Your task to perform on an android device: Search for Mexican restaurants on Maps Image 0: 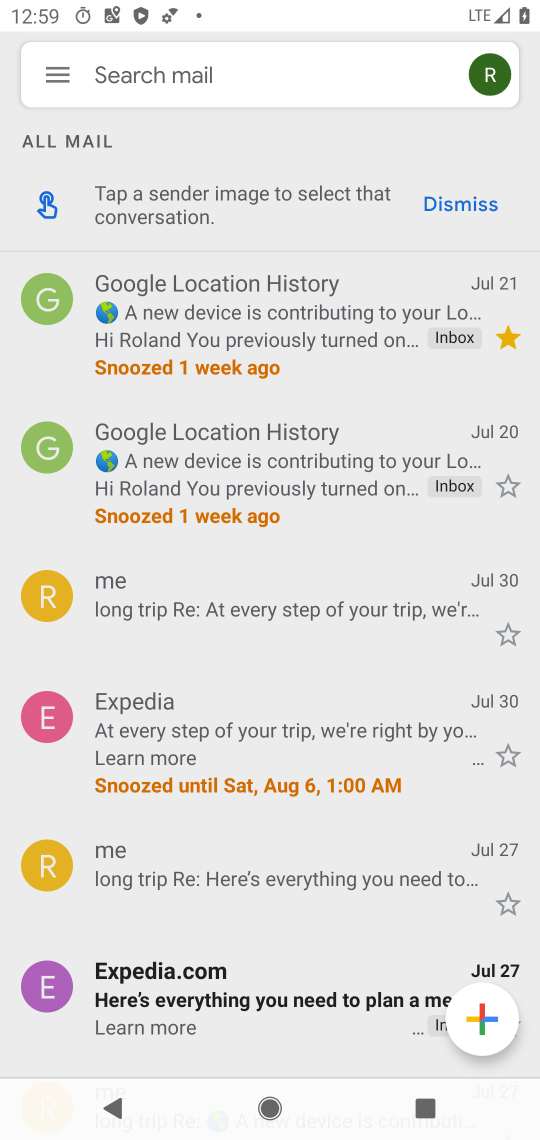
Step 0: press home button
Your task to perform on an android device: Search for Mexican restaurants on Maps Image 1: 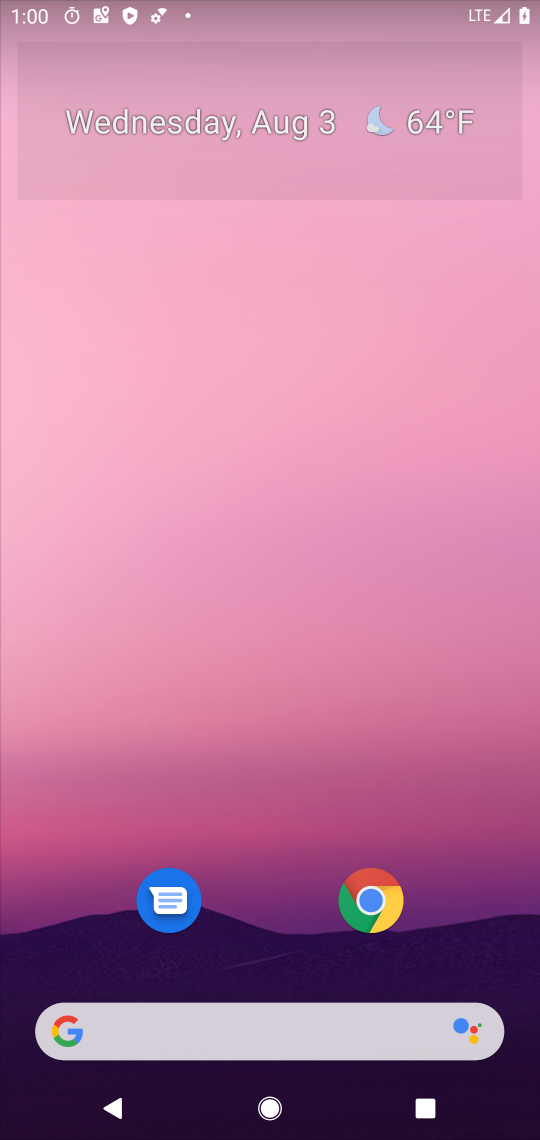
Step 1: drag from (274, 930) to (306, 41)
Your task to perform on an android device: Search for Mexican restaurants on Maps Image 2: 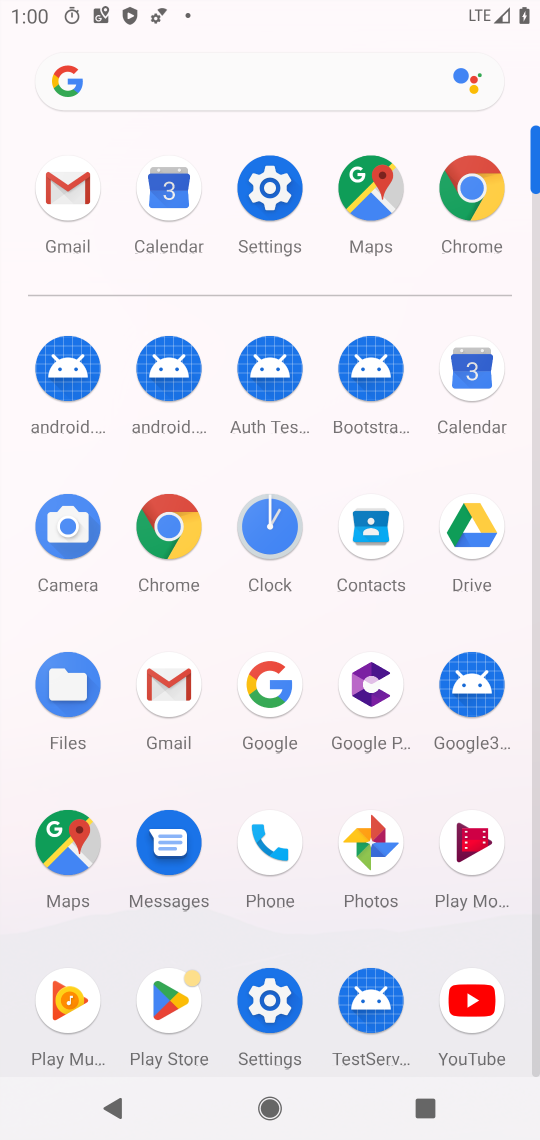
Step 2: click (383, 180)
Your task to perform on an android device: Search for Mexican restaurants on Maps Image 3: 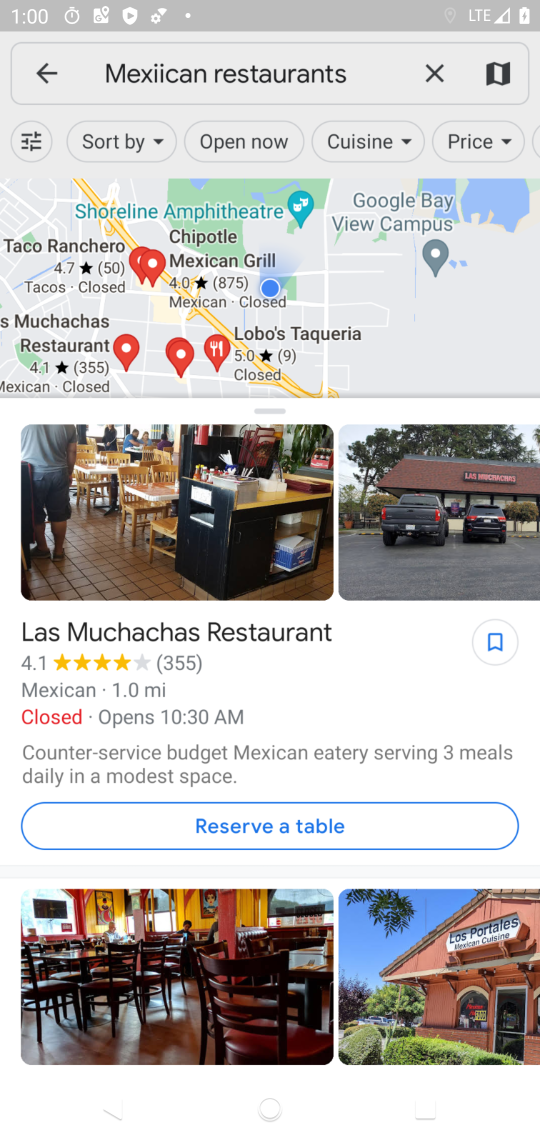
Step 3: click (342, 78)
Your task to perform on an android device: Search for Mexican restaurants on Maps Image 4: 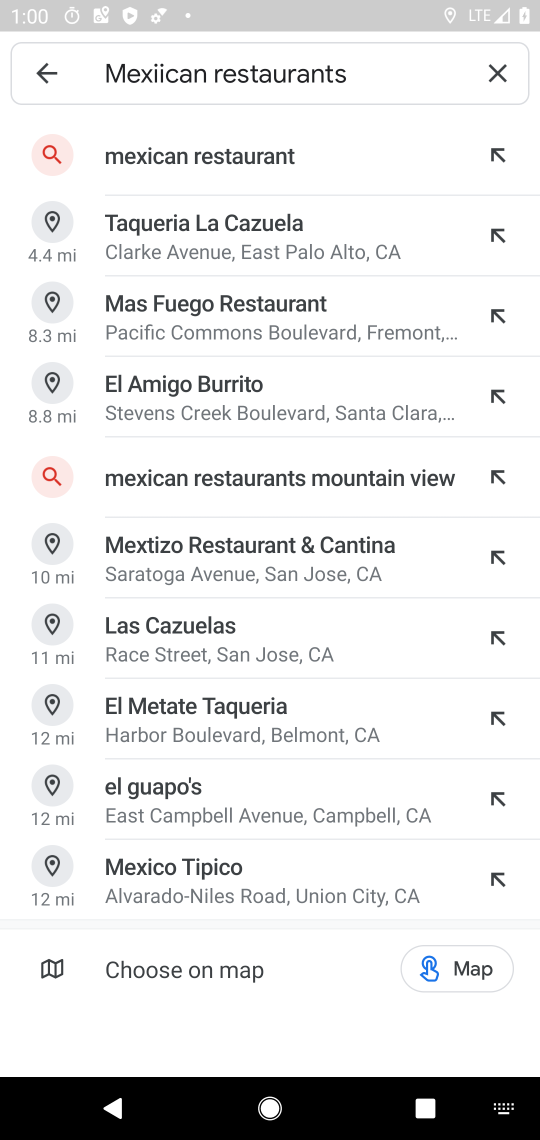
Step 4: click (491, 62)
Your task to perform on an android device: Search for Mexican restaurants on Maps Image 5: 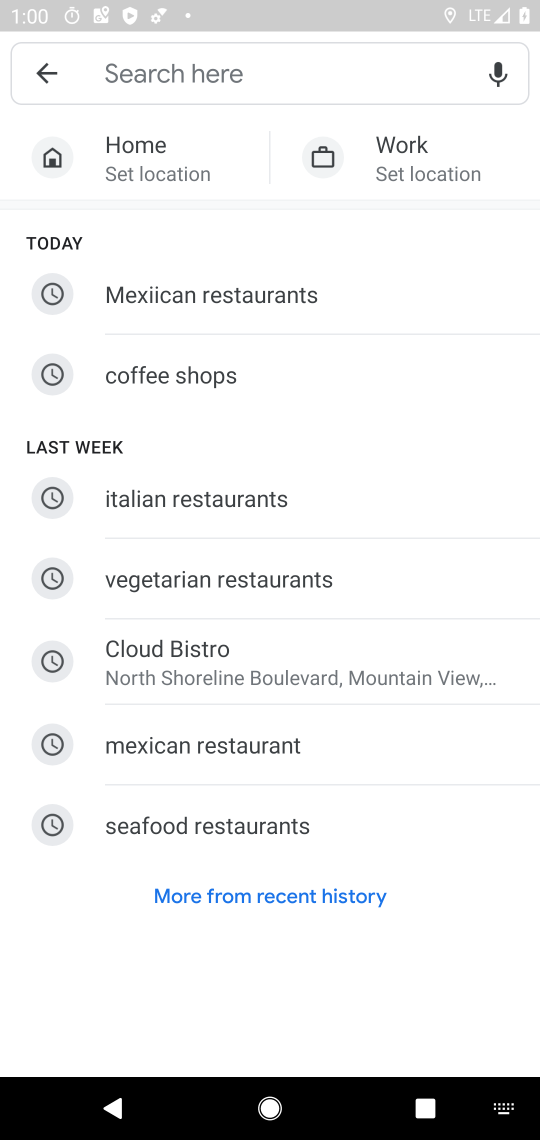
Step 5: type "Mexican restaurants"
Your task to perform on an android device: Search for Mexican restaurants on Maps Image 6: 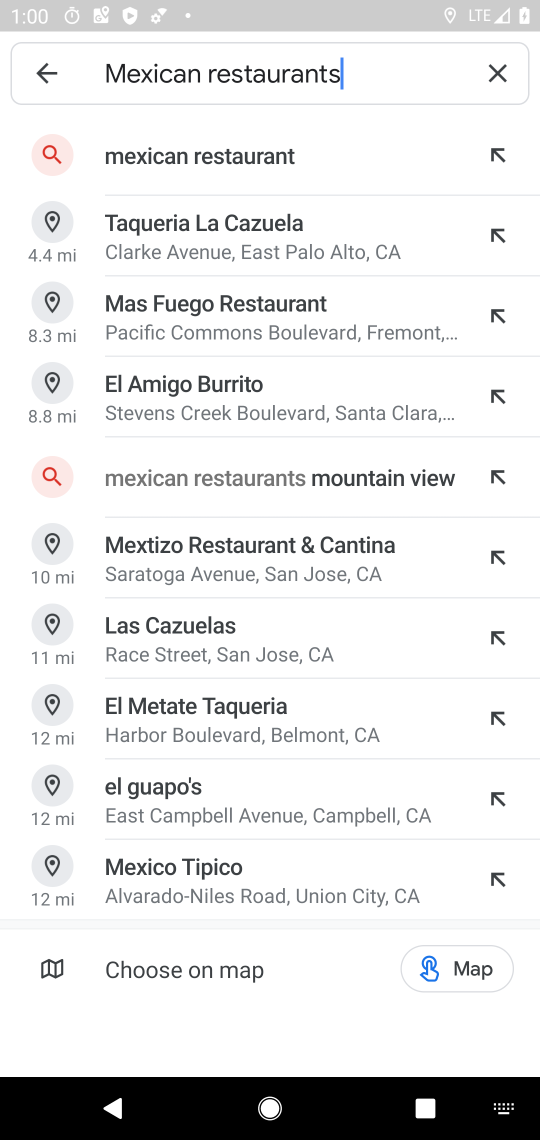
Step 6: press enter
Your task to perform on an android device: Search for Mexican restaurants on Maps Image 7: 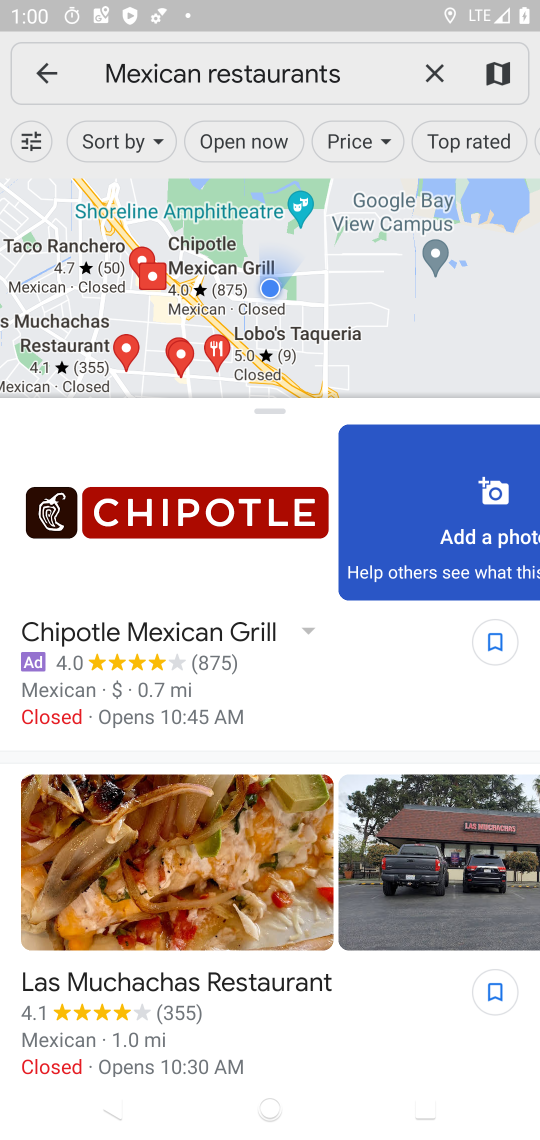
Step 7: task complete